Your task to perform on an android device: delete a single message in the gmail app Image 0: 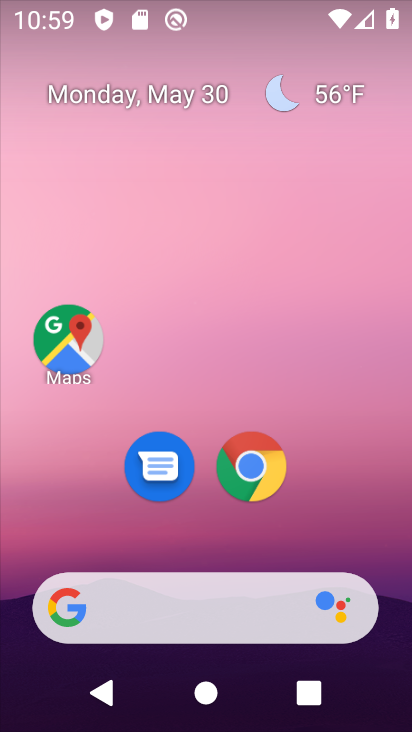
Step 0: drag from (339, 571) to (302, 206)
Your task to perform on an android device: delete a single message in the gmail app Image 1: 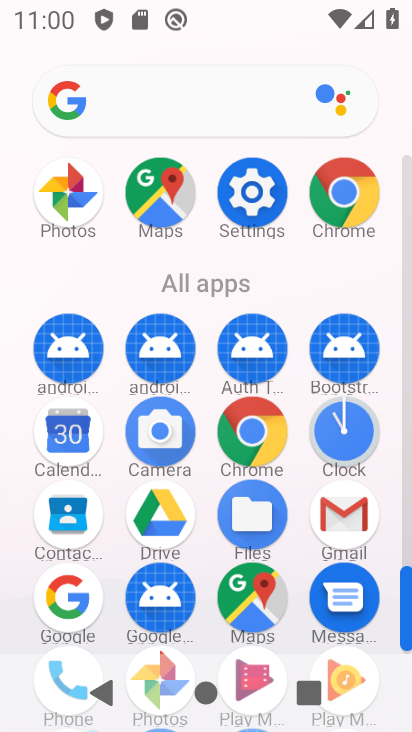
Step 1: click (329, 517)
Your task to perform on an android device: delete a single message in the gmail app Image 2: 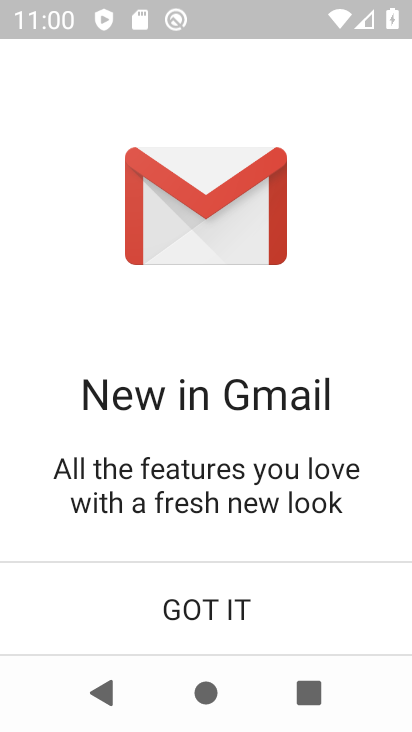
Step 2: click (226, 613)
Your task to perform on an android device: delete a single message in the gmail app Image 3: 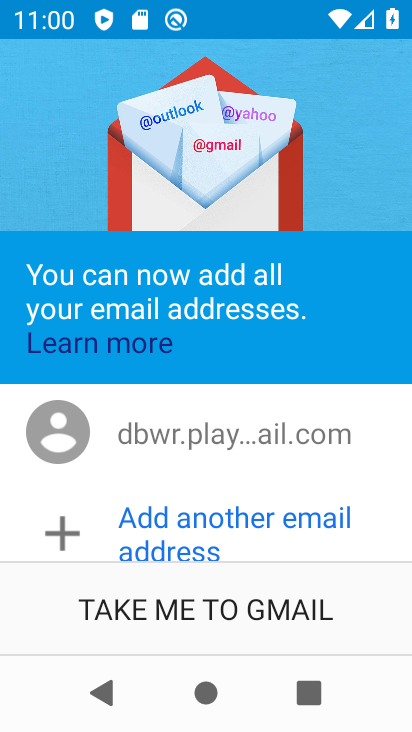
Step 3: click (226, 613)
Your task to perform on an android device: delete a single message in the gmail app Image 4: 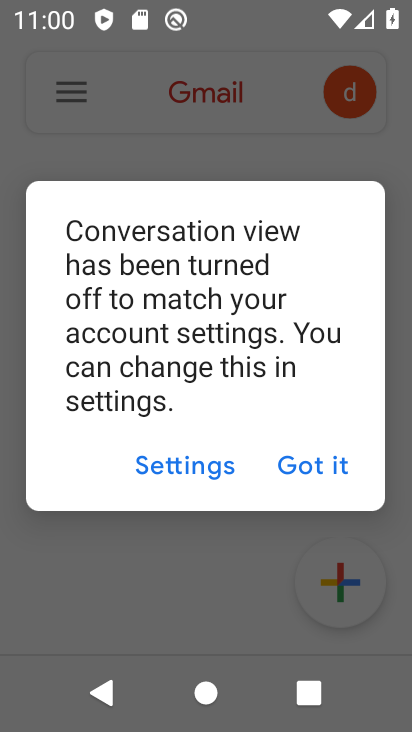
Step 4: click (274, 455)
Your task to perform on an android device: delete a single message in the gmail app Image 5: 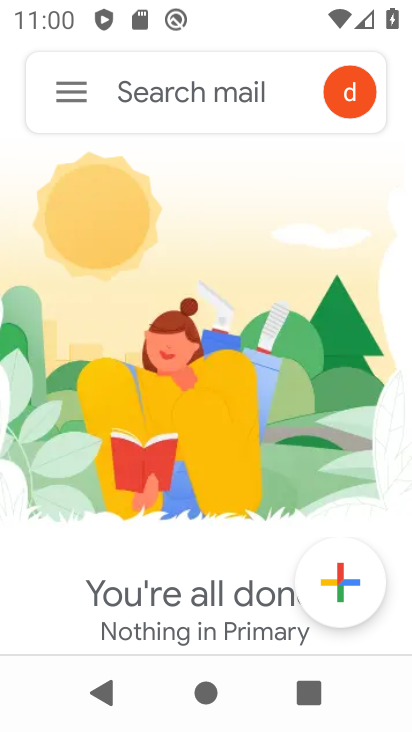
Step 5: click (86, 95)
Your task to perform on an android device: delete a single message in the gmail app Image 6: 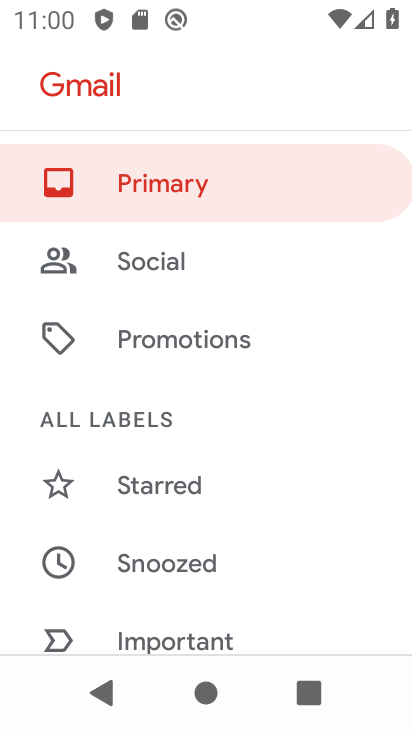
Step 6: drag from (198, 567) to (184, 279)
Your task to perform on an android device: delete a single message in the gmail app Image 7: 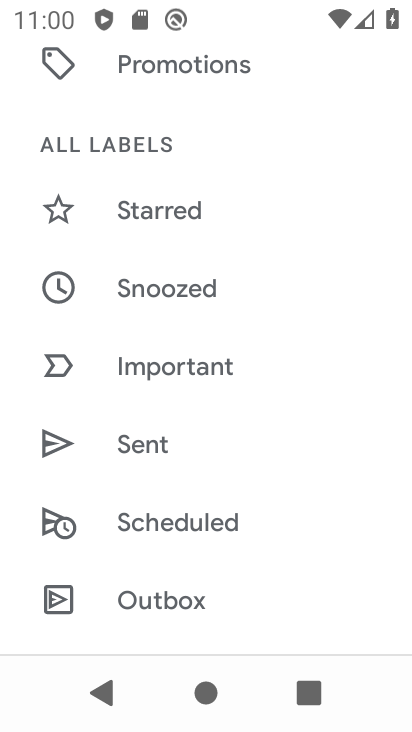
Step 7: drag from (203, 613) to (185, 311)
Your task to perform on an android device: delete a single message in the gmail app Image 8: 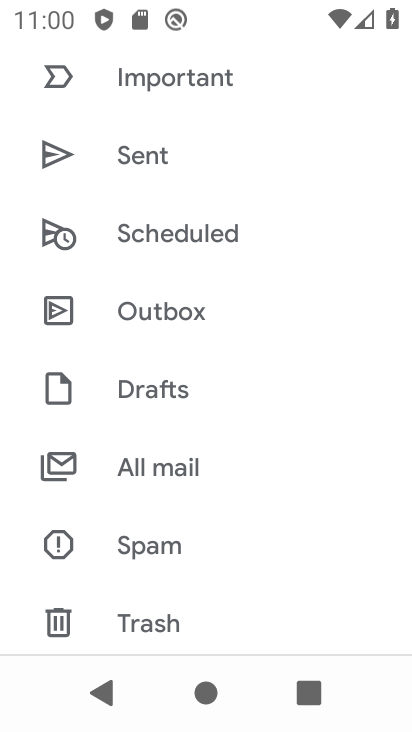
Step 8: click (183, 477)
Your task to perform on an android device: delete a single message in the gmail app Image 9: 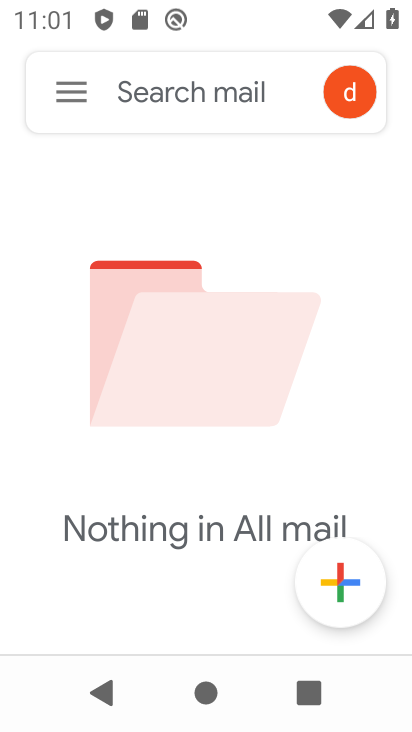
Step 9: task complete